Your task to perform on an android device: Search for pizza restaurants on Maps Image 0: 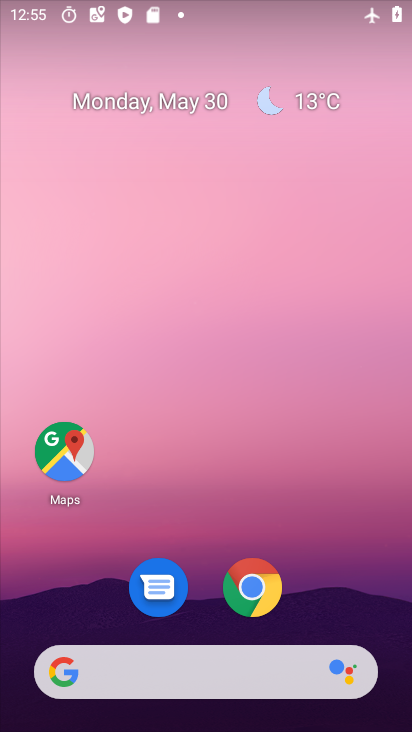
Step 0: drag from (294, 441) to (250, 29)
Your task to perform on an android device: Search for pizza restaurants on Maps Image 1: 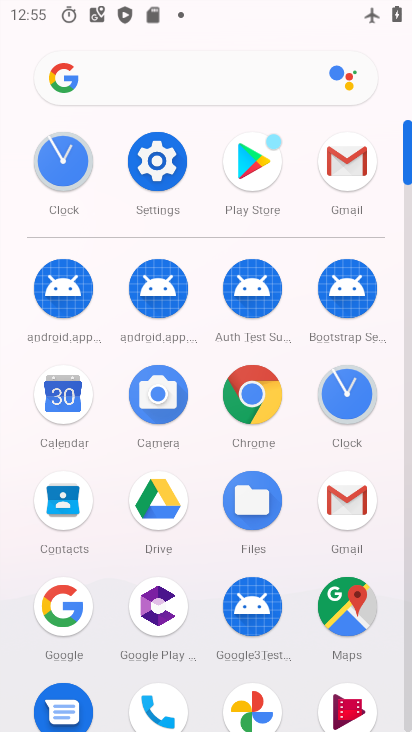
Step 1: click (355, 611)
Your task to perform on an android device: Search for pizza restaurants on Maps Image 2: 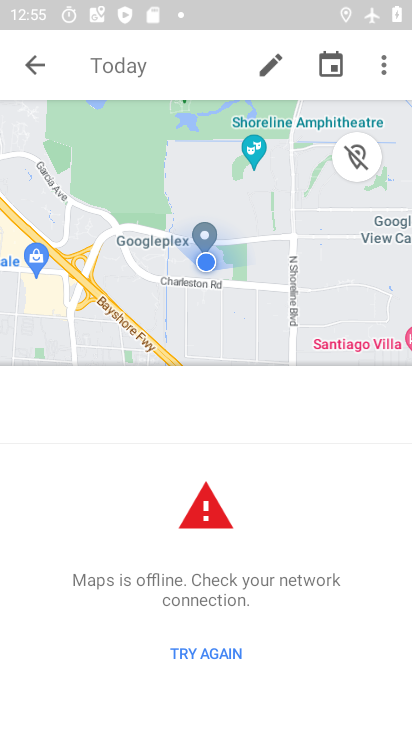
Step 2: click (13, 75)
Your task to perform on an android device: Search for pizza restaurants on Maps Image 3: 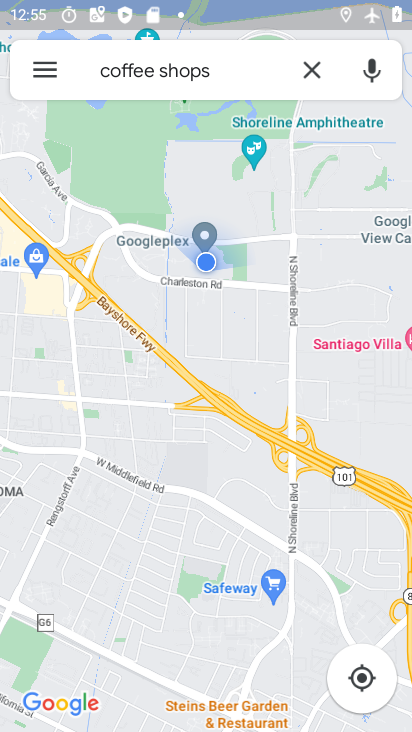
Step 3: click (267, 69)
Your task to perform on an android device: Search for pizza restaurants on Maps Image 4: 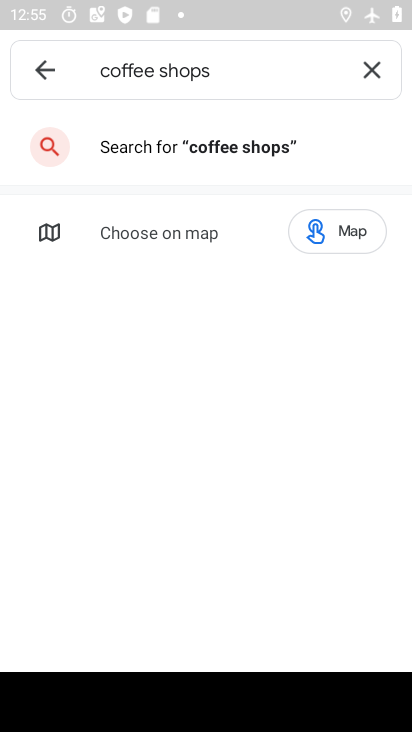
Step 4: click (363, 64)
Your task to perform on an android device: Search for pizza restaurants on Maps Image 5: 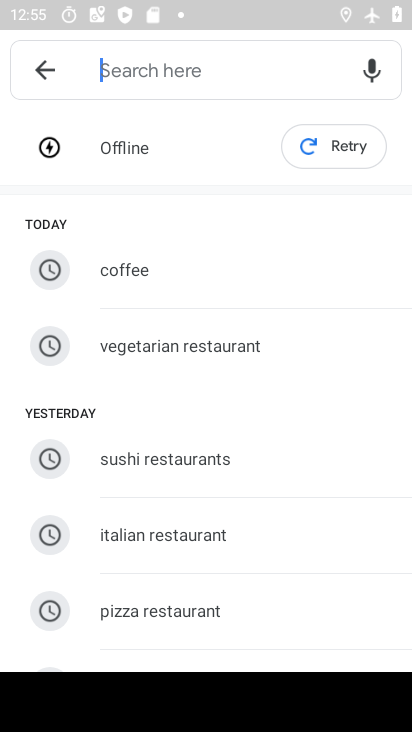
Step 5: click (235, 619)
Your task to perform on an android device: Search for pizza restaurants on Maps Image 6: 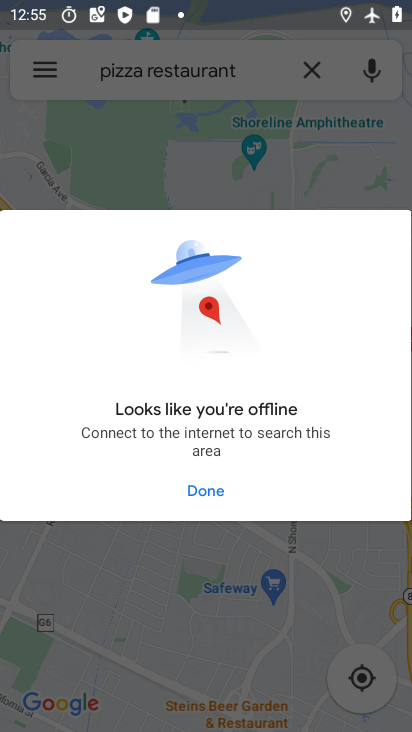
Step 6: task complete